Your task to perform on an android device: Empty the shopping cart on bestbuy. Add "lg ultragear" to the cart on bestbuy Image 0: 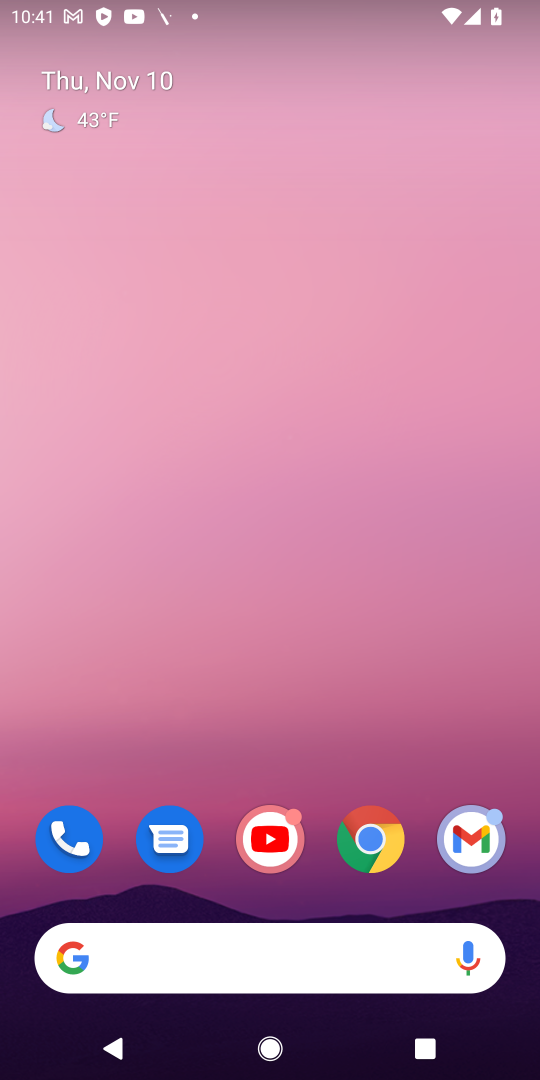
Step 0: click (378, 836)
Your task to perform on an android device: Empty the shopping cart on bestbuy. Add "lg ultragear" to the cart on bestbuy Image 1: 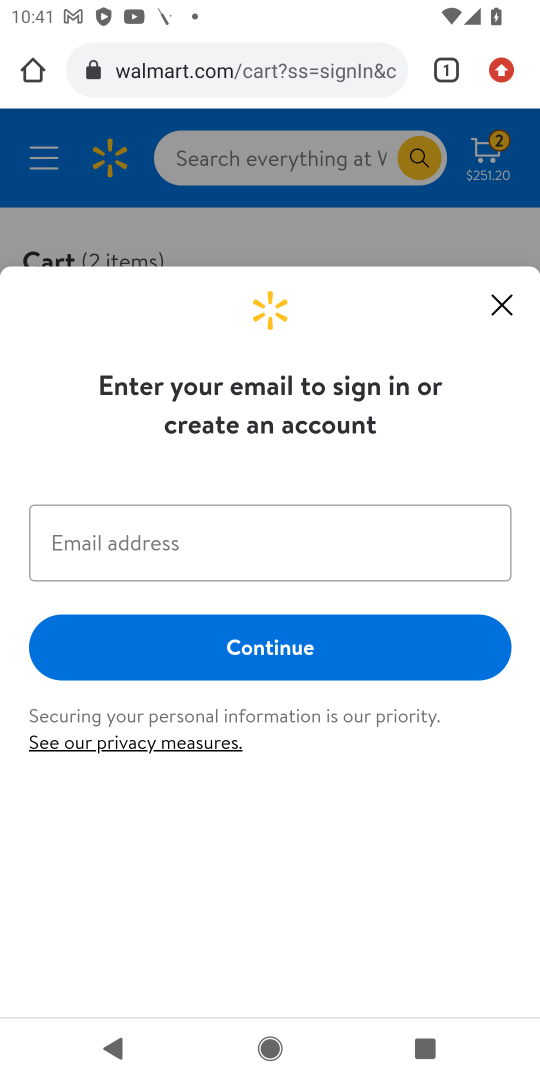
Step 1: click (289, 72)
Your task to perform on an android device: Empty the shopping cart on bestbuy. Add "lg ultragear" to the cart on bestbuy Image 2: 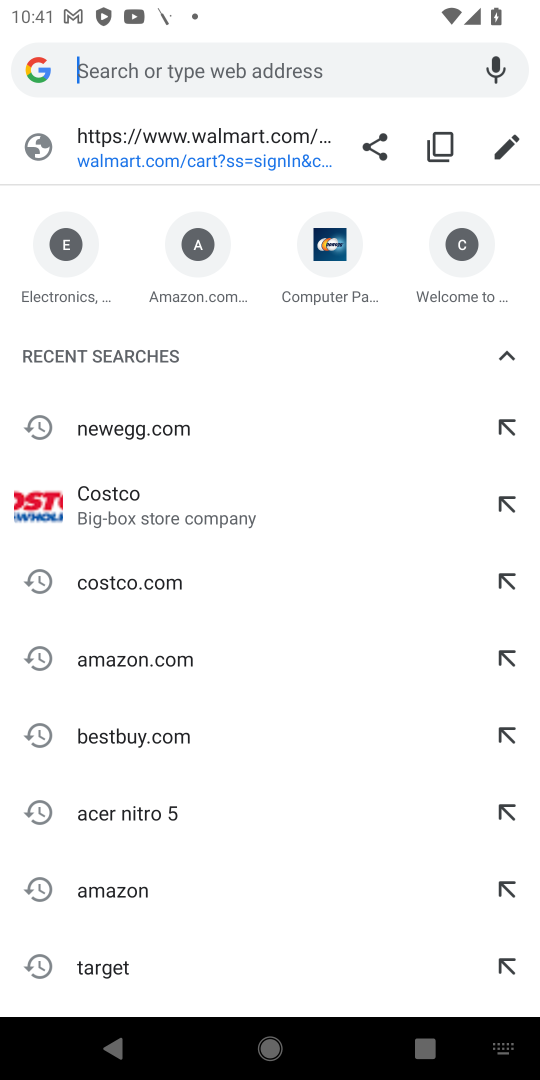
Step 2: type "bestbuy"
Your task to perform on an android device: Empty the shopping cart on bestbuy. Add "lg ultragear" to the cart on bestbuy Image 3: 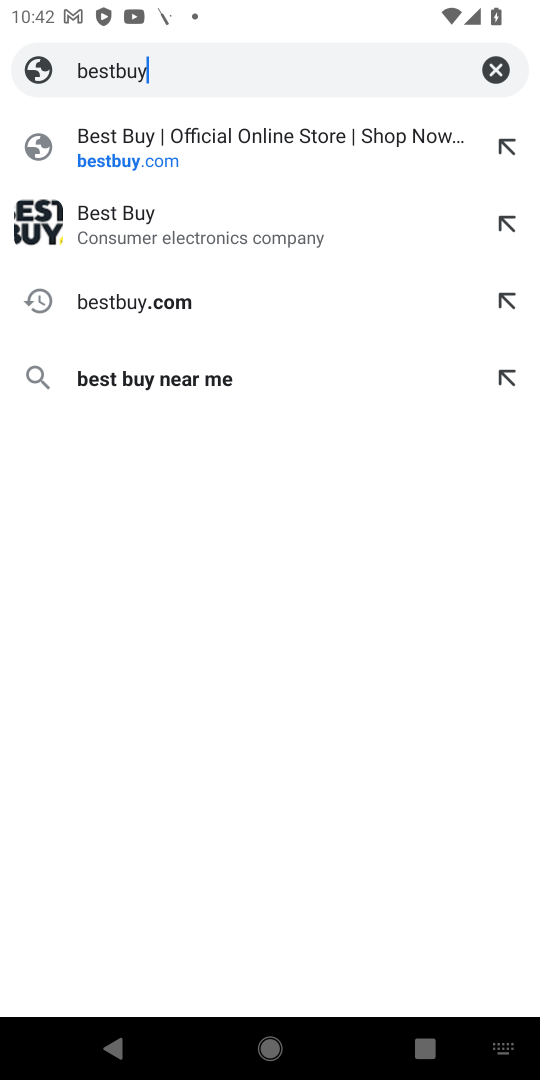
Step 3: click (186, 302)
Your task to perform on an android device: Empty the shopping cart on bestbuy. Add "lg ultragear" to the cart on bestbuy Image 4: 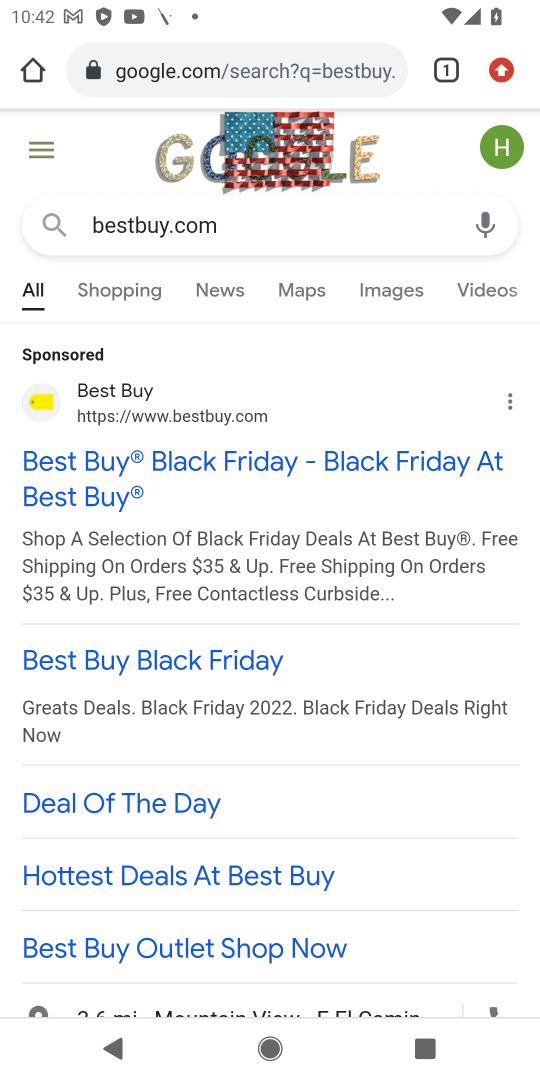
Step 4: drag from (320, 817) to (340, 353)
Your task to perform on an android device: Empty the shopping cart on bestbuy. Add "lg ultragear" to the cart on bestbuy Image 5: 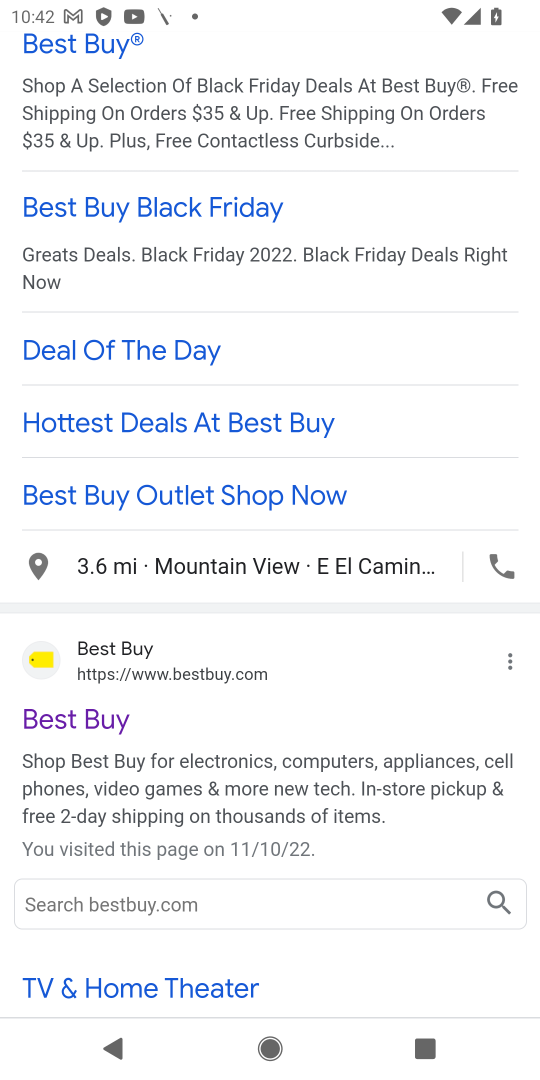
Step 5: click (237, 670)
Your task to perform on an android device: Empty the shopping cart on bestbuy. Add "lg ultragear" to the cart on bestbuy Image 6: 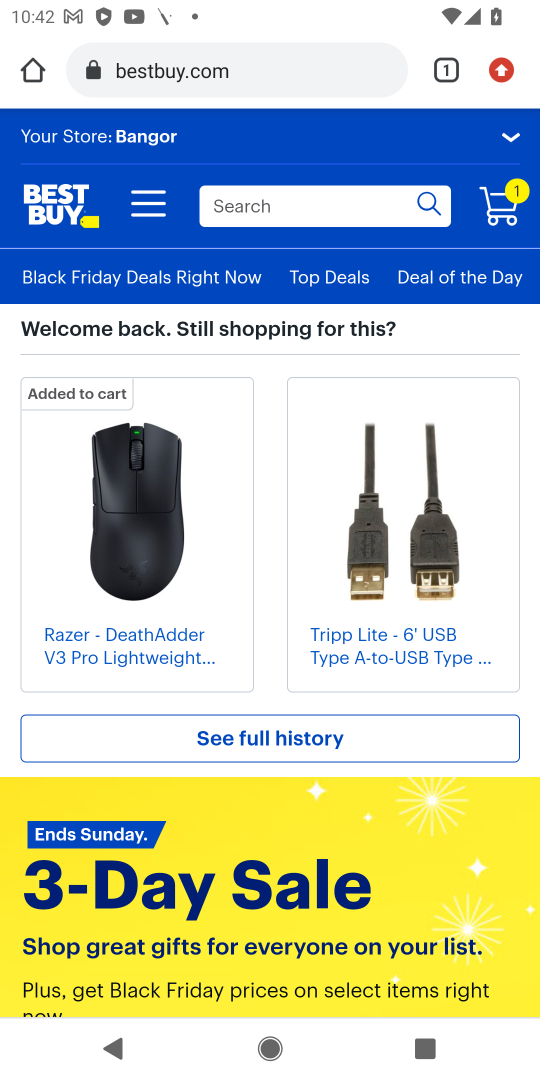
Step 6: click (495, 211)
Your task to perform on an android device: Empty the shopping cart on bestbuy. Add "lg ultragear" to the cart on bestbuy Image 7: 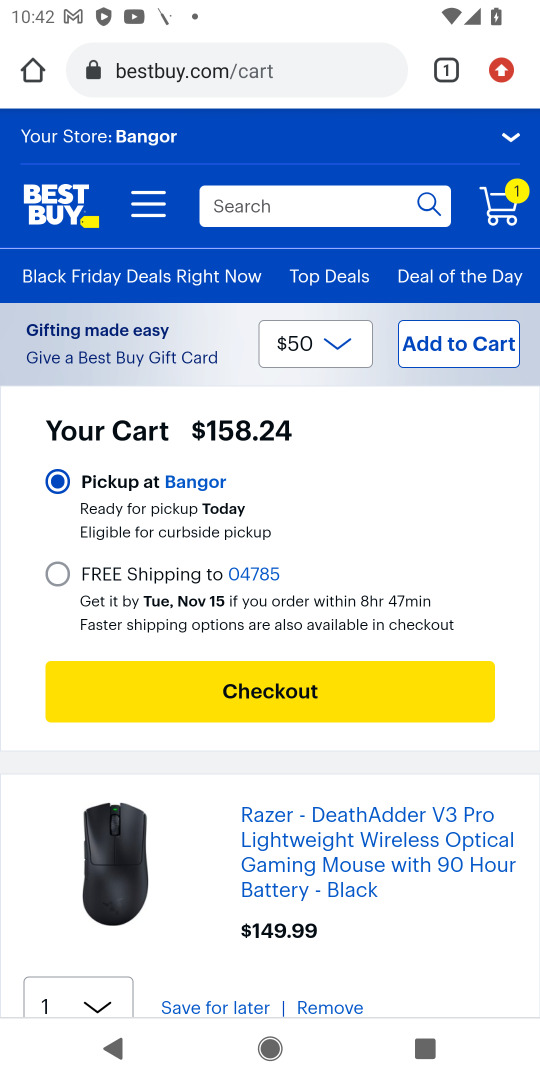
Step 7: click (280, 694)
Your task to perform on an android device: Empty the shopping cart on bestbuy. Add "lg ultragear" to the cart on bestbuy Image 8: 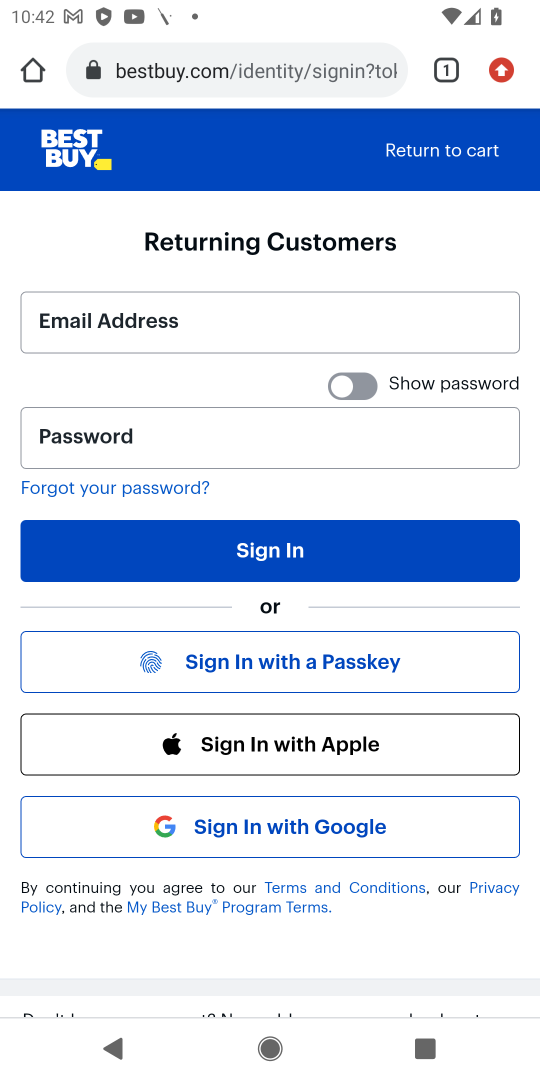
Step 8: press back button
Your task to perform on an android device: Empty the shopping cart on bestbuy. Add "lg ultragear" to the cart on bestbuy Image 9: 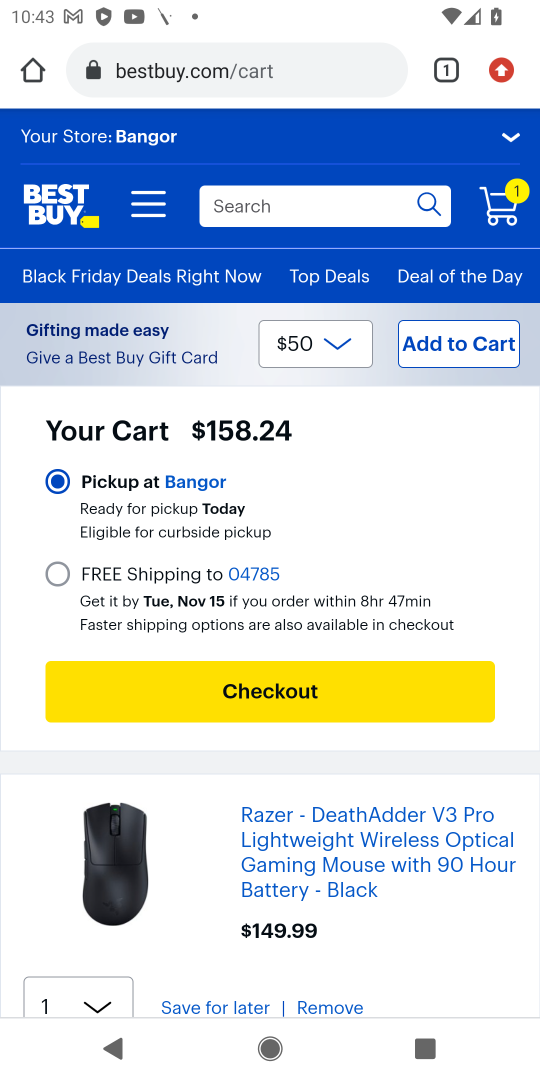
Step 9: click (358, 204)
Your task to perform on an android device: Empty the shopping cart on bestbuy. Add "lg ultragear" to the cart on bestbuy Image 10: 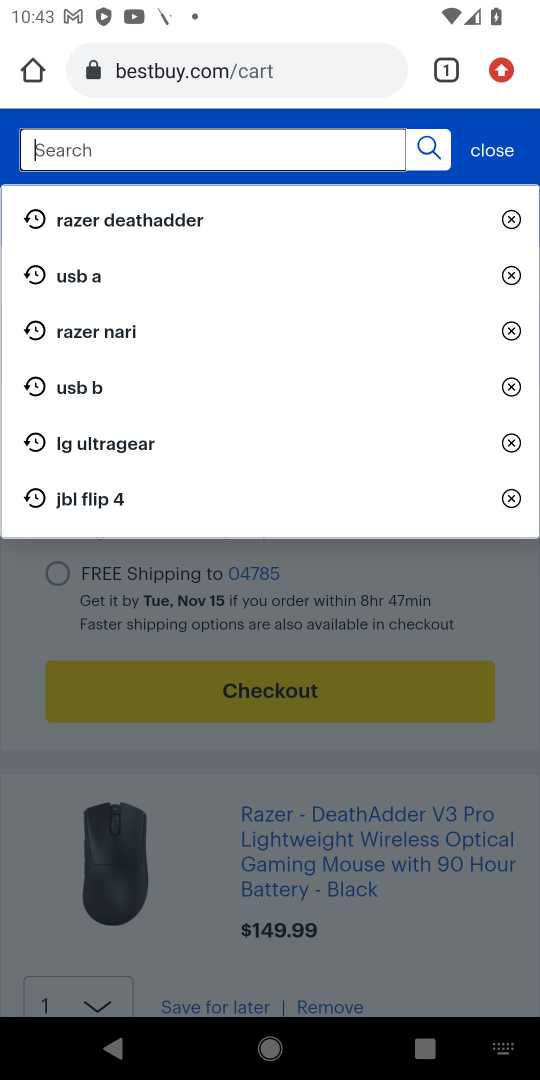
Step 10: type "lg ultragear"
Your task to perform on an android device: Empty the shopping cart on bestbuy. Add "lg ultragear" to the cart on bestbuy Image 11: 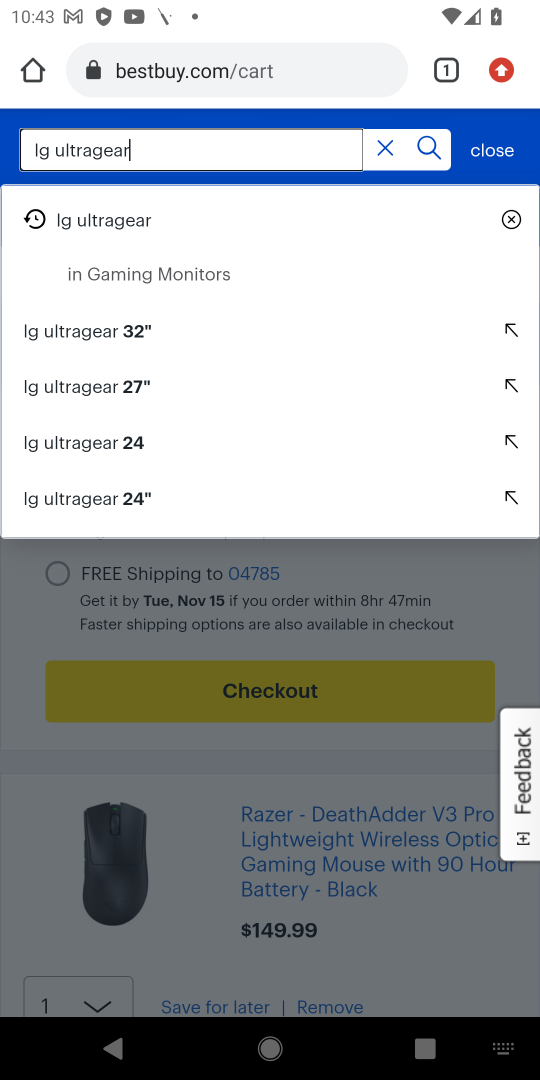
Step 11: click (131, 222)
Your task to perform on an android device: Empty the shopping cart on bestbuy. Add "lg ultragear" to the cart on bestbuy Image 12: 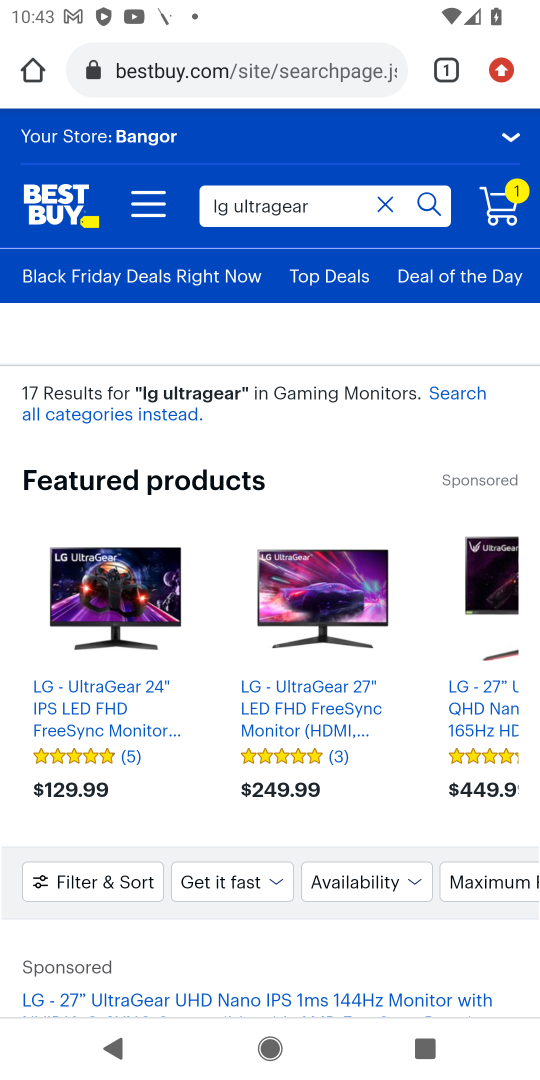
Step 12: drag from (234, 788) to (294, 337)
Your task to perform on an android device: Empty the shopping cart on bestbuy. Add "lg ultragear" to the cart on bestbuy Image 13: 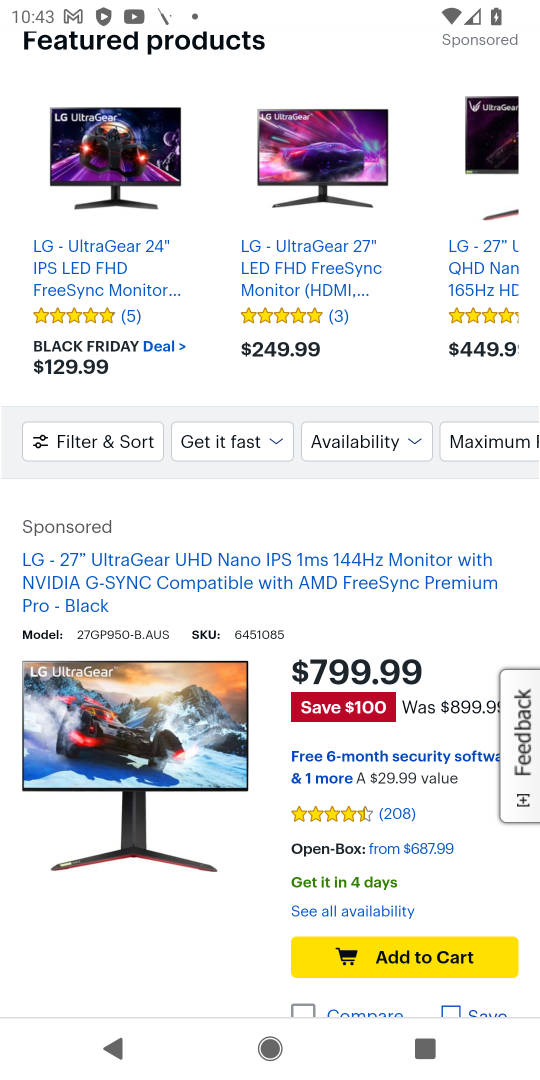
Step 13: click (150, 784)
Your task to perform on an android device: Empty the shopping cart on bestbuy. Add "lg ultragear" to the cart on bestbuy Image 14: 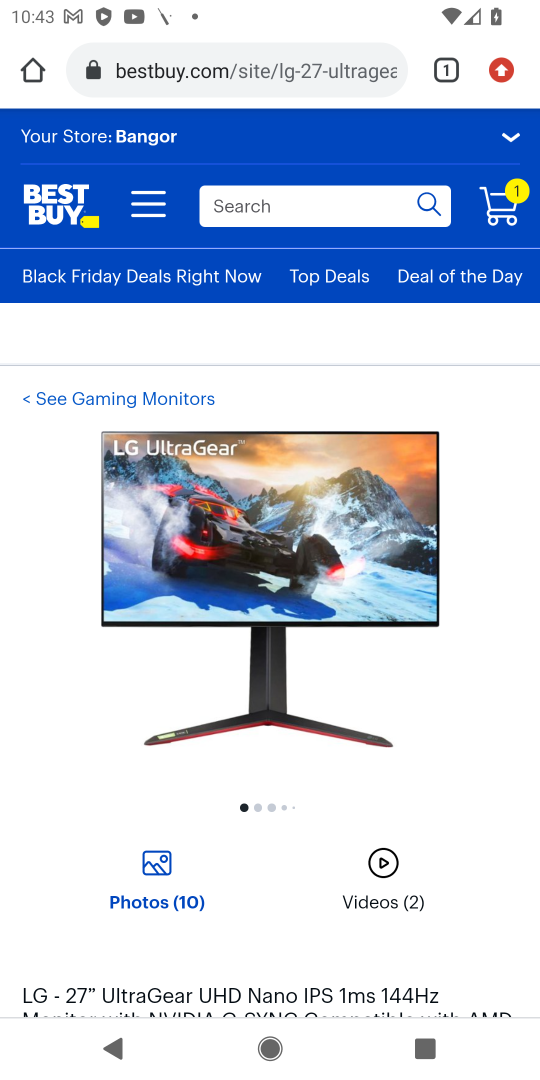
Step 14: drag from (407, 703) to (385, 217)
Your task to perform on an android device: Empty the shopping cart on bestbuy. Add "lg ultragear" to the cart on bestbuy Image 15: 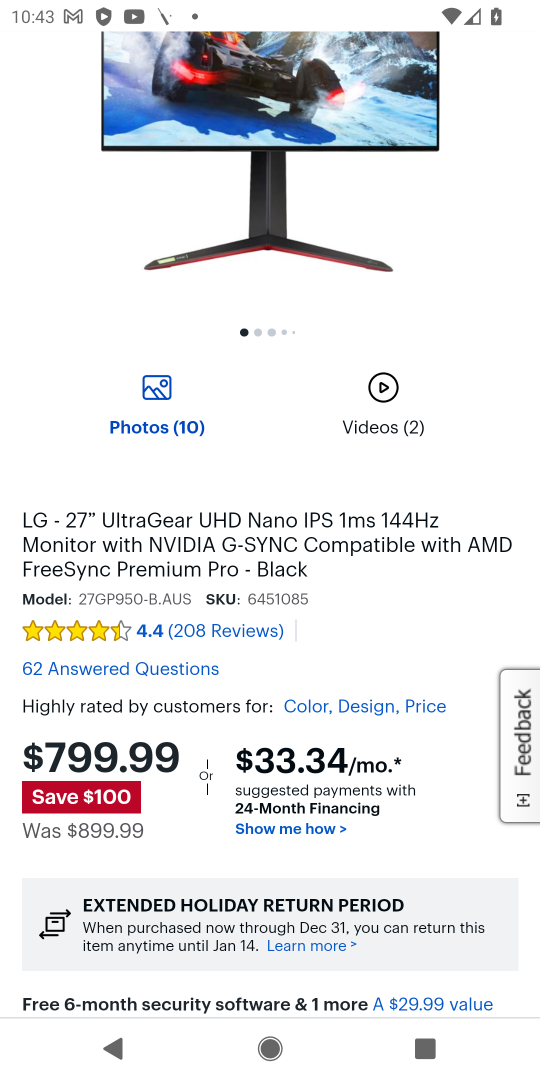
Step 15: drag from (496, 827) to (461, 290)
Your task to perform on an android device: Empty the shopping cart on bestbuy. Add "lg ultragear" to the cart on bestbuy Image 16: 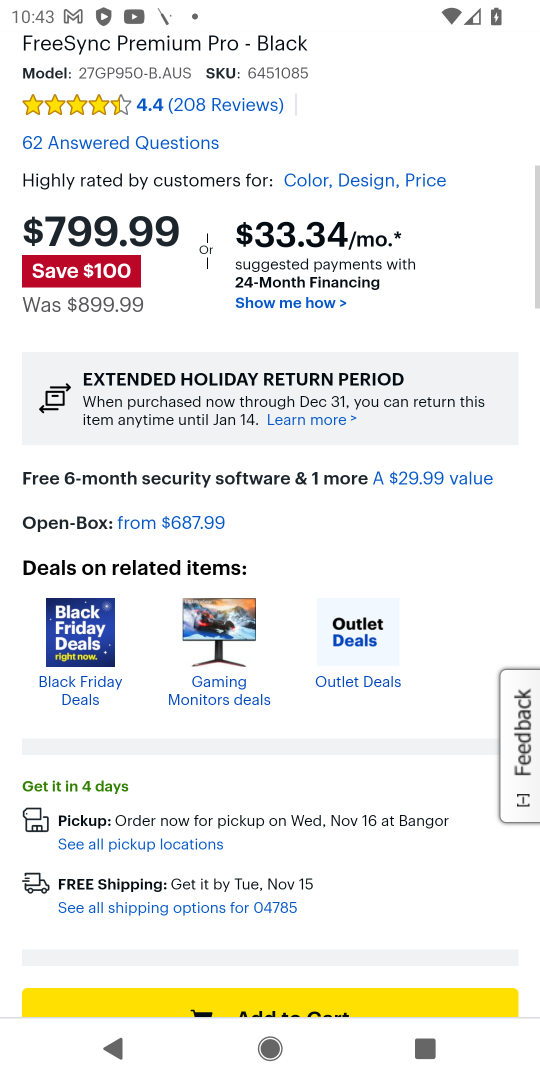
Step 16: drag from (407, 818) to (449, 420)
Your task to perform on an android device: Empty the shopping cart on bestbuy. Add "lg ultragear" to the cart on bestbuy Image 17: 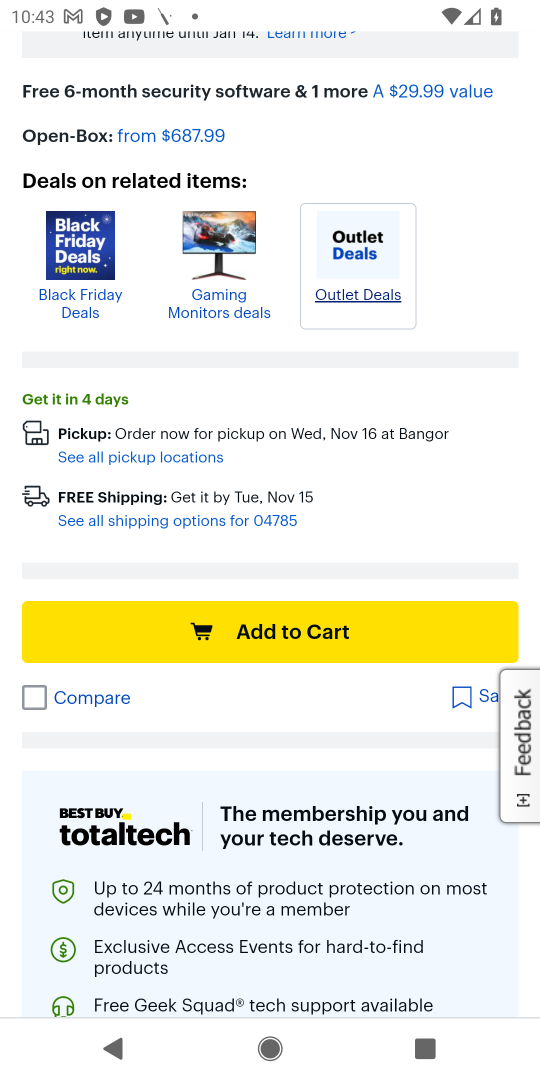
Step 17: click (302, 624)
Your task to perform on an android device: Empty the shopping cart on bestbuy. Add "lg ultragear" to the cart on bestbuy Image 18: 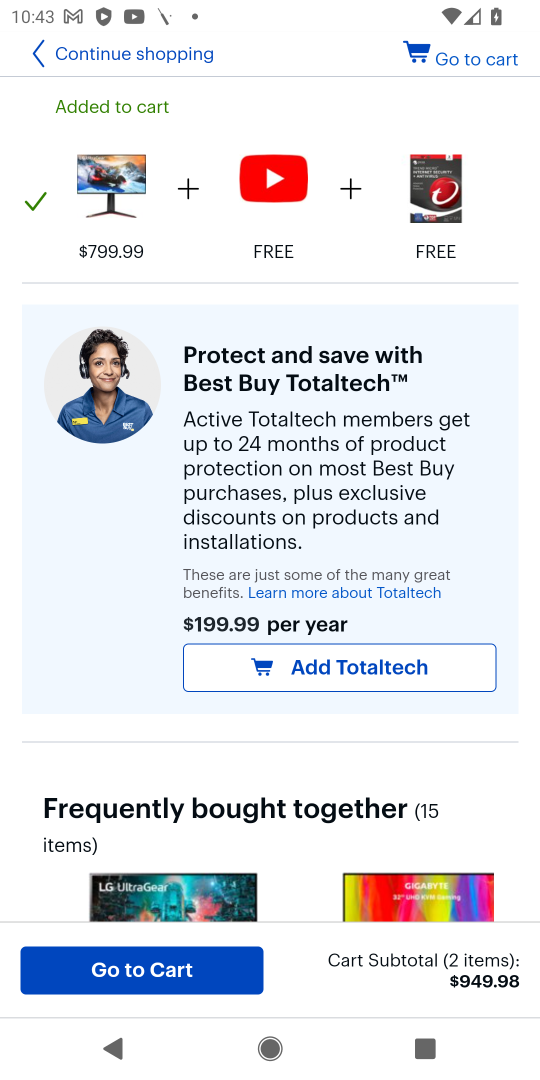
Step 18: task complete